Your task to perform on an android device: toggle notification dots Image 0: 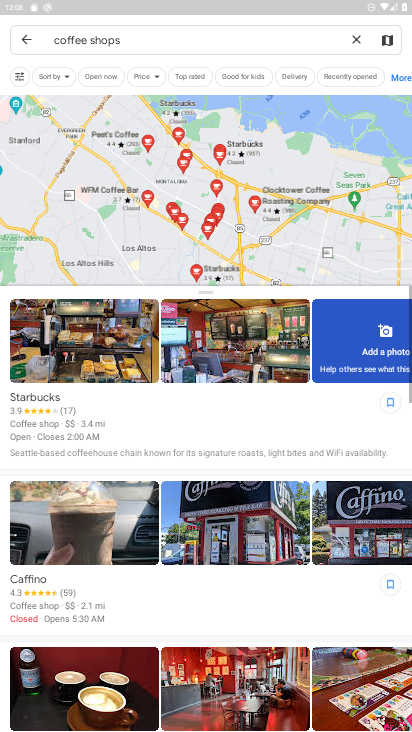
Step 0: press home button
Your task to perform on an android device: toggle notification dots Image 1: 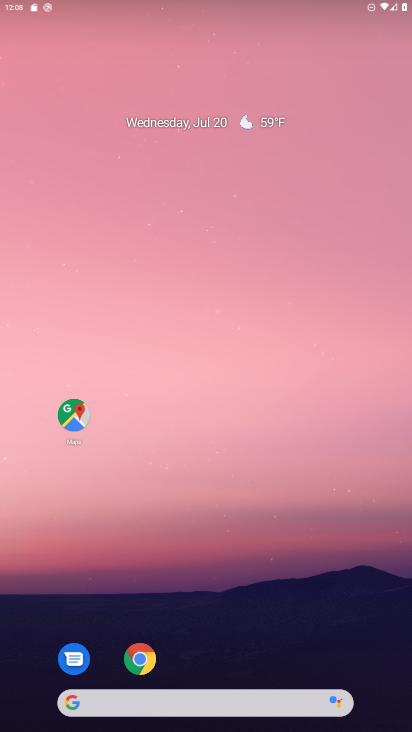
Step 1: press home button
Your task to perform on an android device: toggle notification dots Image 2: 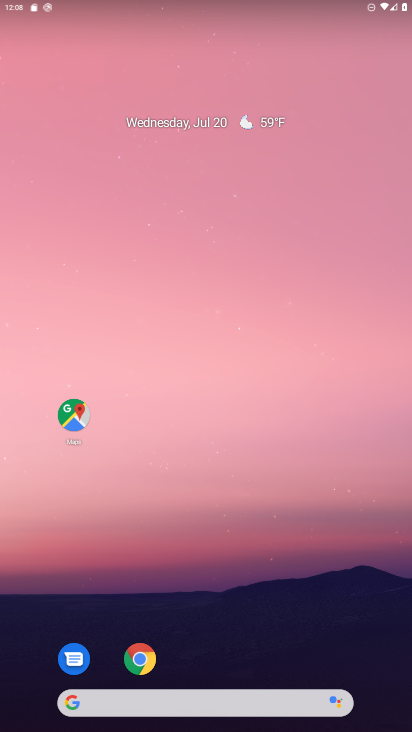
Step 2: drag from (232, 615) to (195, 124)
Your task to perform on an android device: toggle notification dots Image 3: 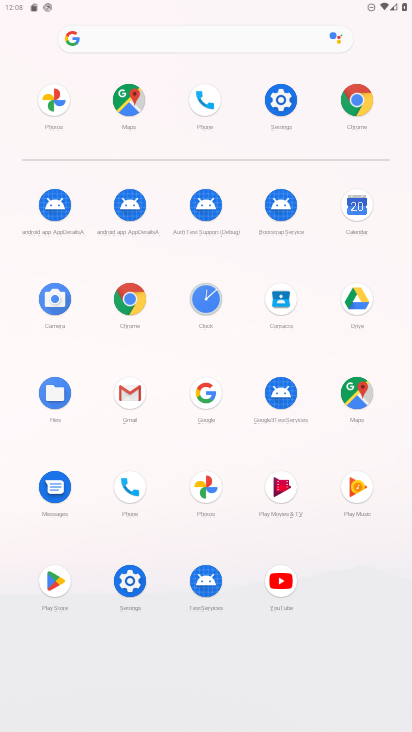
Step 3: click (202, 315)
Your task to perform on an android device: toggle notification dots Image 4: 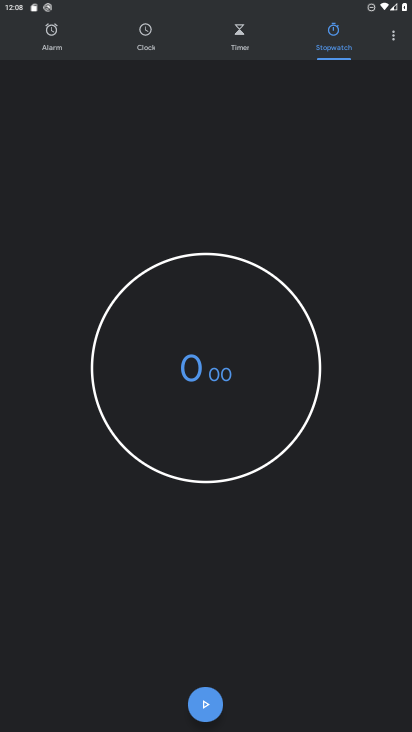
Step 4: click (396, 34)
Your task to perform on an android device: toggle notification dots Image 5: 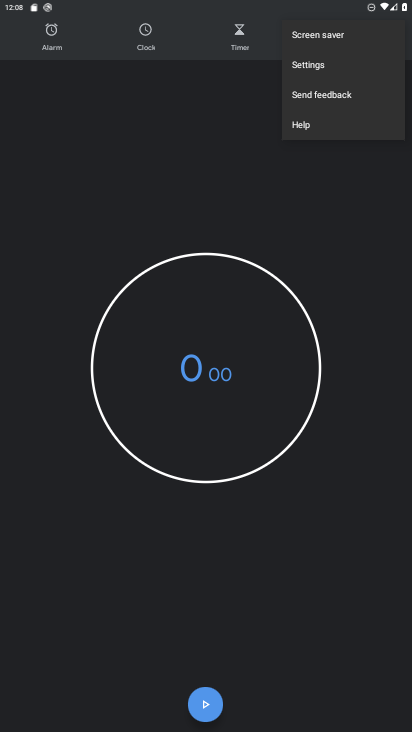
Step 5: press home button
Your task to perform on an android device: toggle notification dots Image 6: 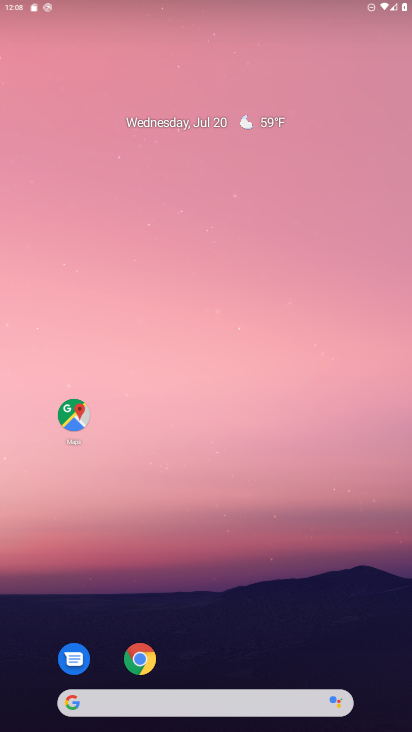
Step 6: drag from (277, 598) to (240, 137)
Your task to perform on an android device: toggle notification dots Image 7: 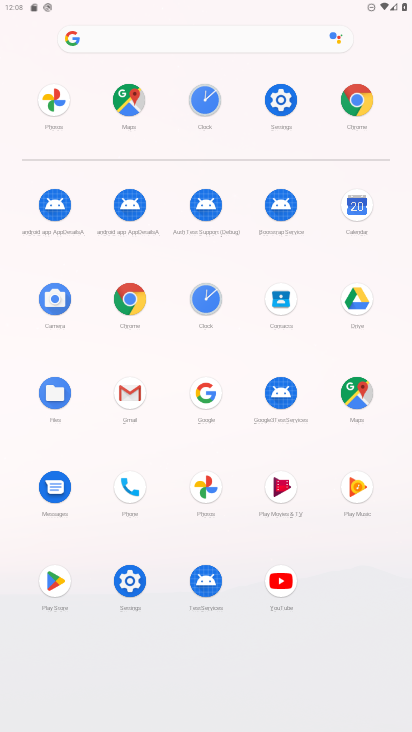
Step 7: click (283, 104)
Your task to perform on an android device: toggle notification dots Image 8: 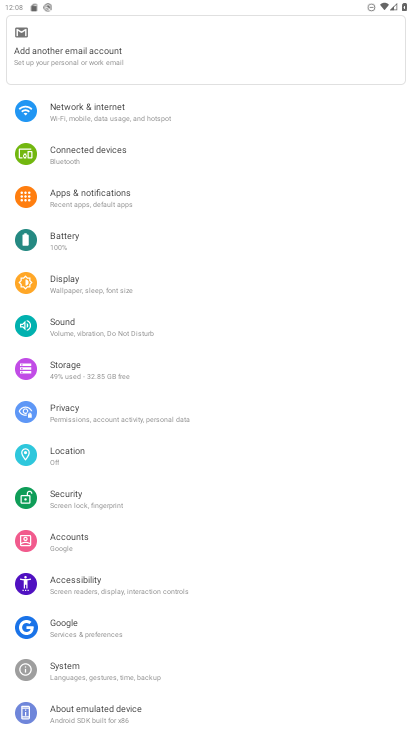
Step 8: click (110, 199)
Your task to perform on an android device: toggle notification dots Image 9: 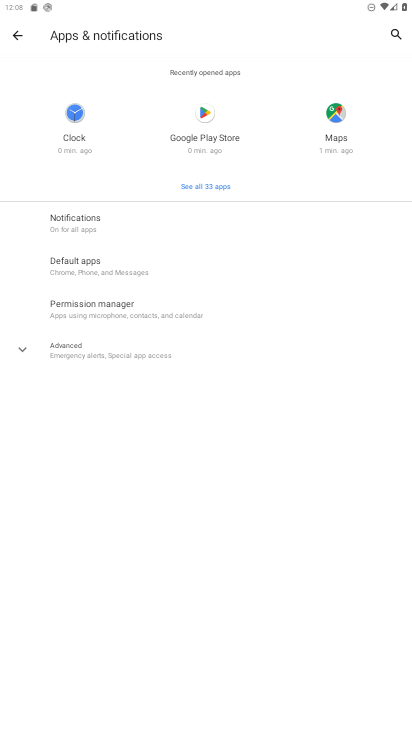
Step 9: click (78, 223)
Your task to perform on an android device: toggle notification dots Image 10: 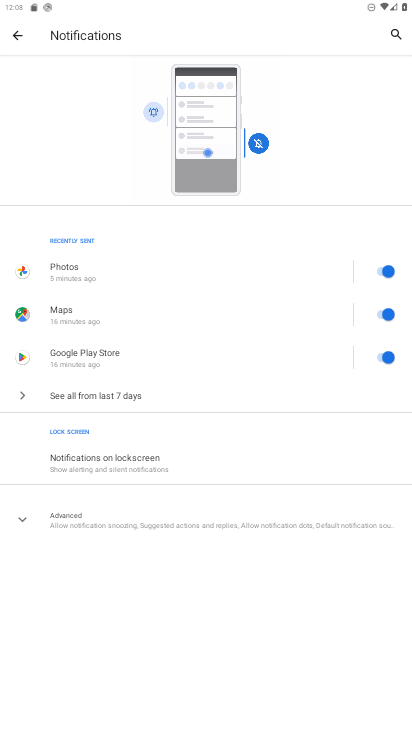
Step 10: click (147, 518)
Your task to perform on an android device: toggle notification dots Image 11: 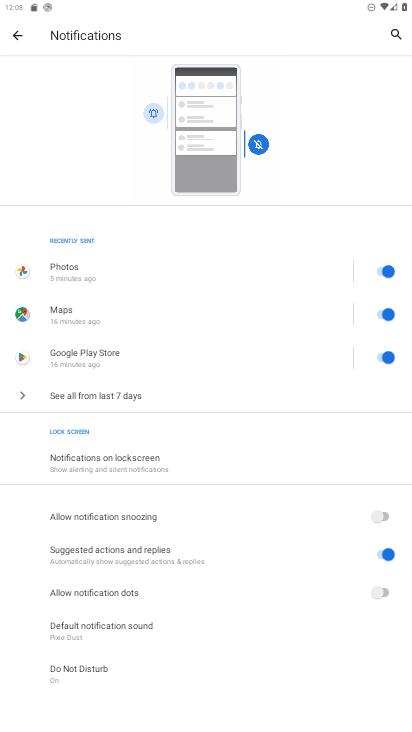
Step 11: click (366, 594)
Your task to perform on an android device: toggle notification dots Image 12: 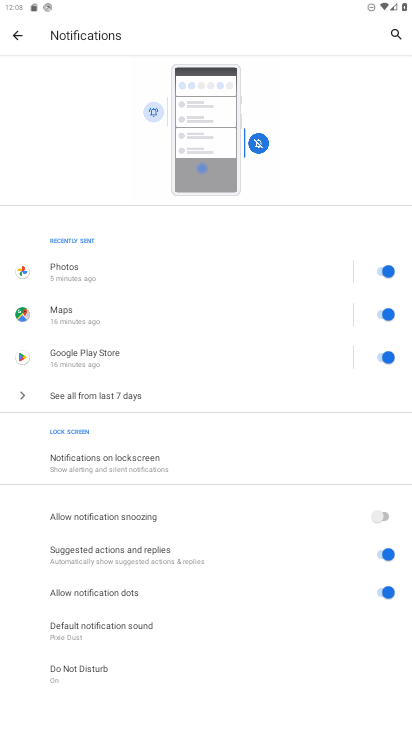
Step 12: task complete